Your task to perform on an android device: open chrome and create a bookmark for the current page Image 0: 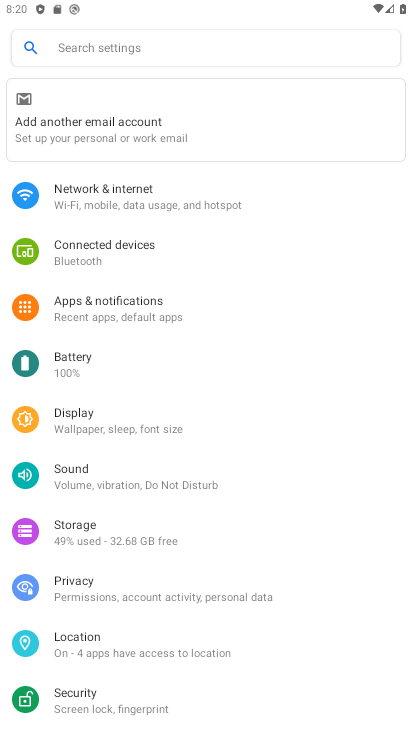
Step 0: press home button
Your task to perform on an android device: open chrome and create a bookmark for the current page Image 1: 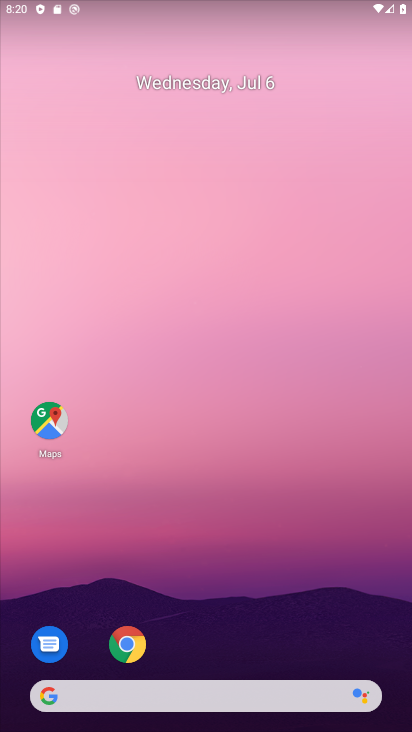
Step 1: click (134, 653)
Your task to perform on an android device: open chrome and create a bookmark for the current page Image 2: 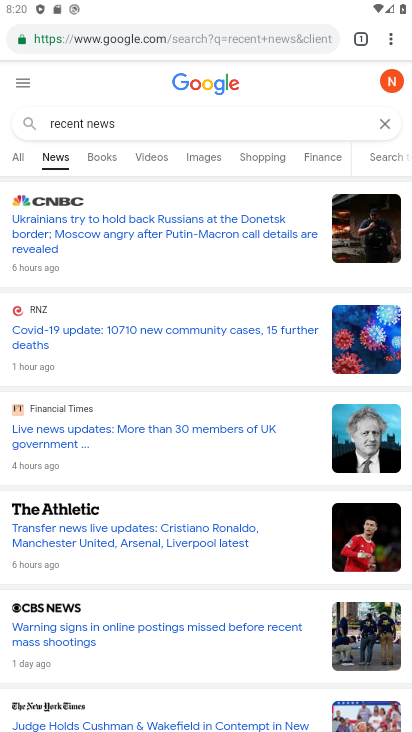
Step 2: click (107, 231)
Your task to perform on an android device: open chrome and create a bookmark for the current page Image 3: 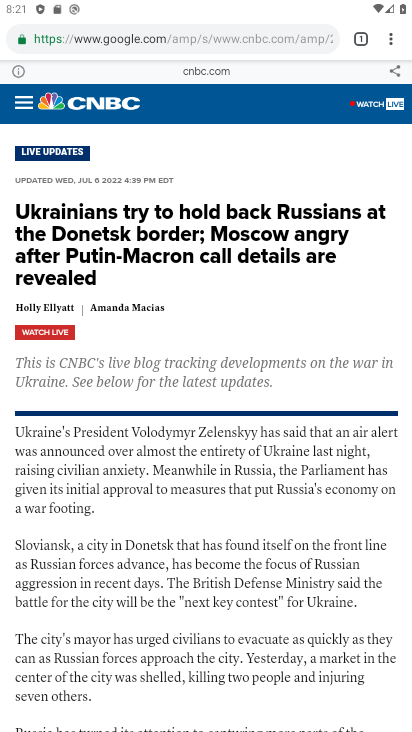
Step 3: click (392, 34)
Your task to perform on an android device: open chrome and create a bookmark for the current page Image 4: 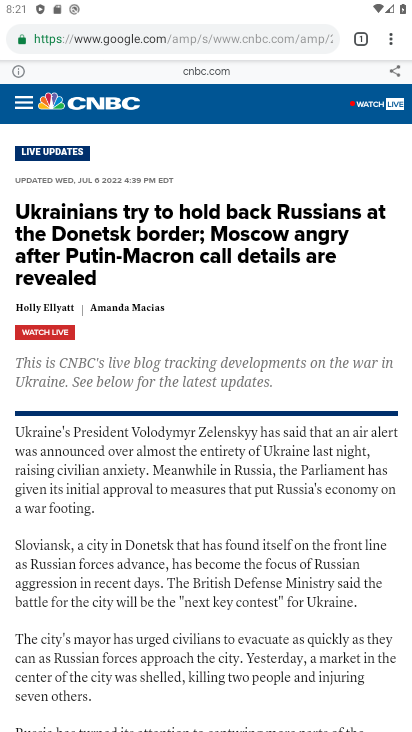
Step 4: task complete